Your task to perform on an android device: toggle wifi Image 0: 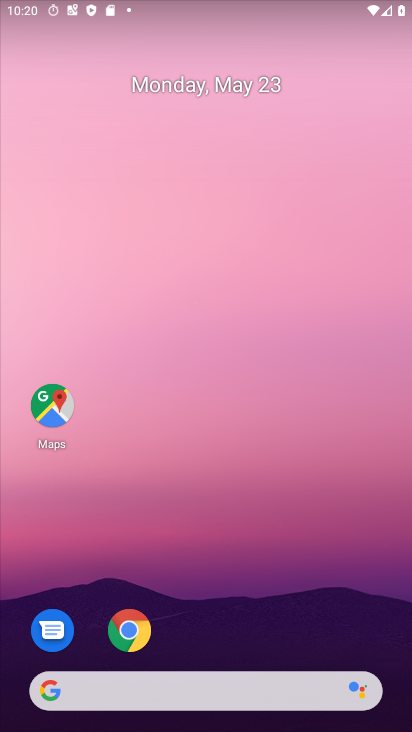
Step 0: drag from (292, 515) to (321, 6)
Your task to perform on an android device: toggle wifi Image 1: 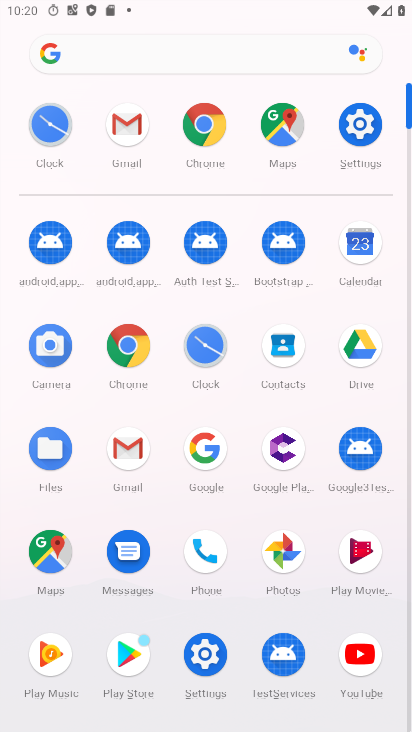
Step 1: click (356, 128)
Your task to perform on an android device: toggle wifi Image 2: 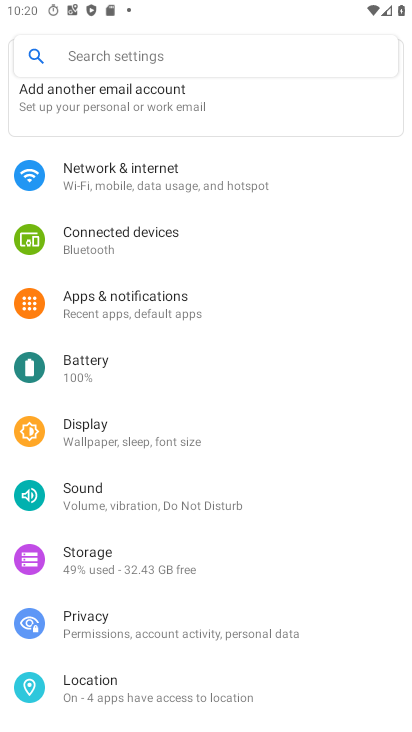
Step 2: click (113, 184)
Your task to perform on an android device: toggle wifi Image 3: 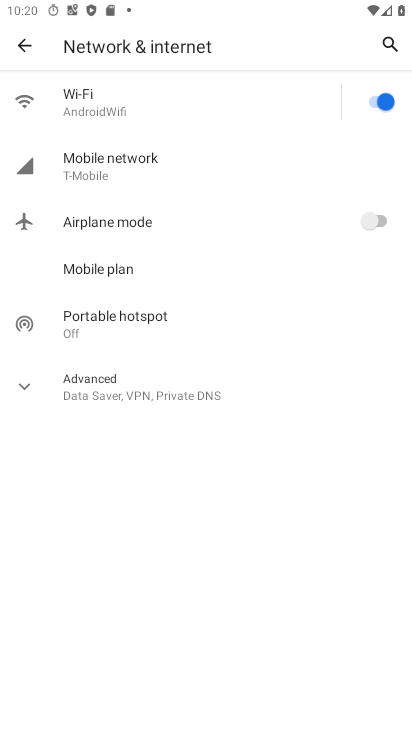
Step 3: click (389, 107)
Your task to perform on an android device: toggle wifi Image 4: 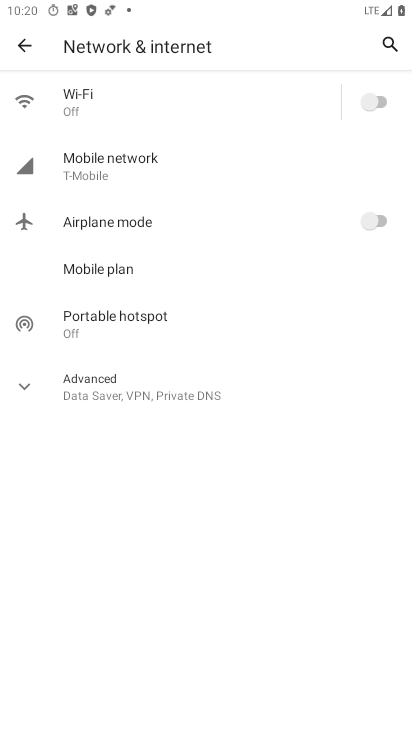
Step 4: task complete